Your task to perform on an android device: Open Android settings Image 0: 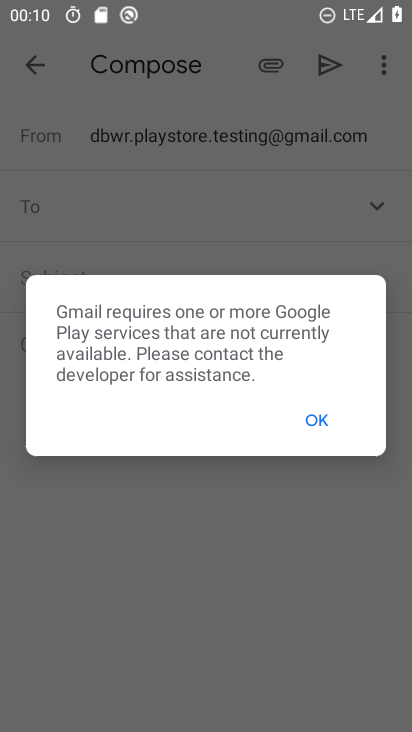
Step 0: press home button
Your task to perform on an android device: Open Android settings Image 1: 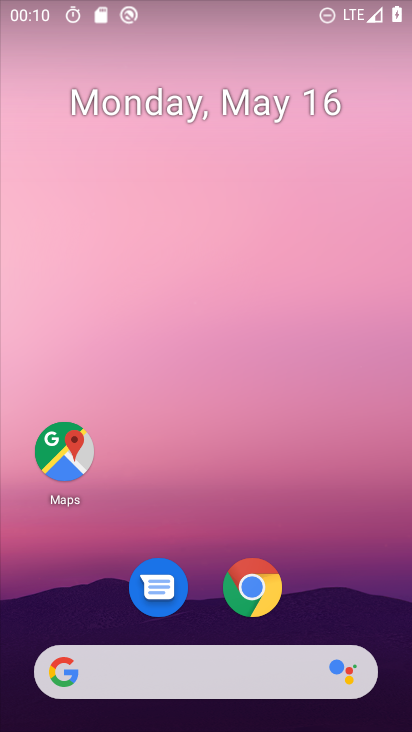
Step 1: drag from (197, 622) to (209, 148)
Your task to perform on an android device: Open Android settings Image 2: 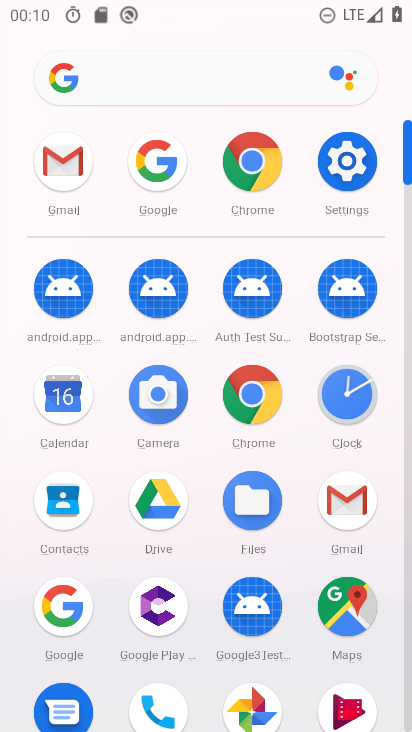
Step 2: click (352, 159)
Your task to perform on an android device: Open Android settings Image 3: 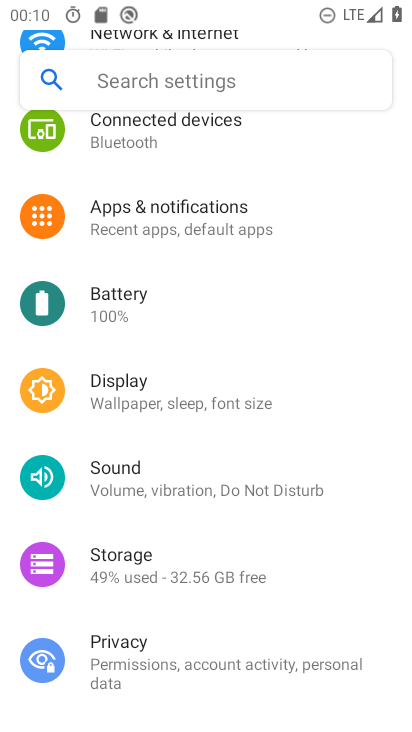
Step 3: task complete